Your task to perform on an android device: open app "Microsoft Authenticator" (install if not already installed) Image 0: 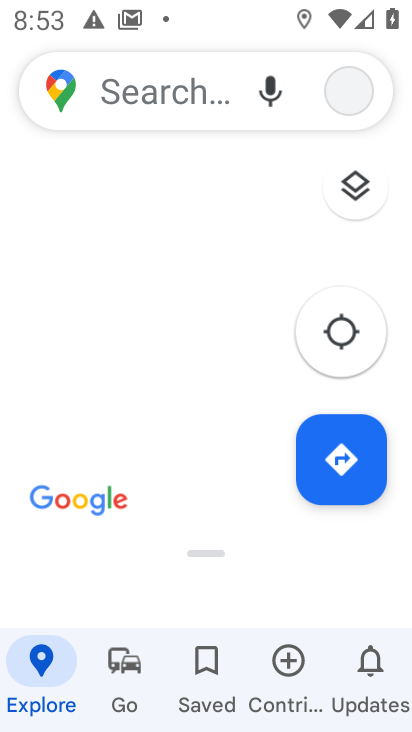
Step 0: press home button
Your task to perform on an android device: open app "Microsoft Authenticator" (install if not already installed) Image 1: 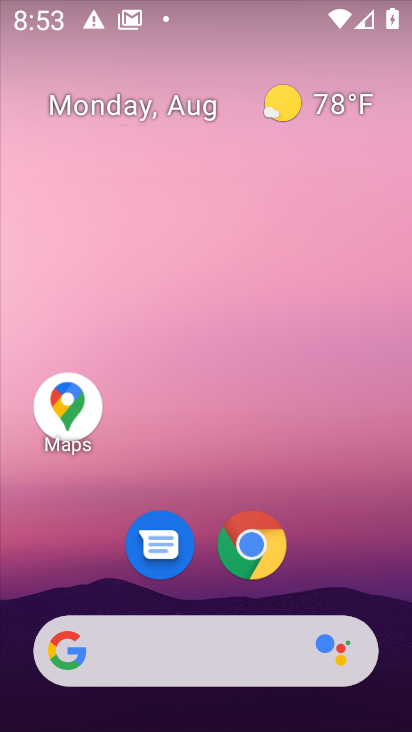
Step 1: drag from (362, 571) to (363, 144)
Your task to perform on an android device: open app "Microsoft Authenticator" (install if not already installed) Image 2: 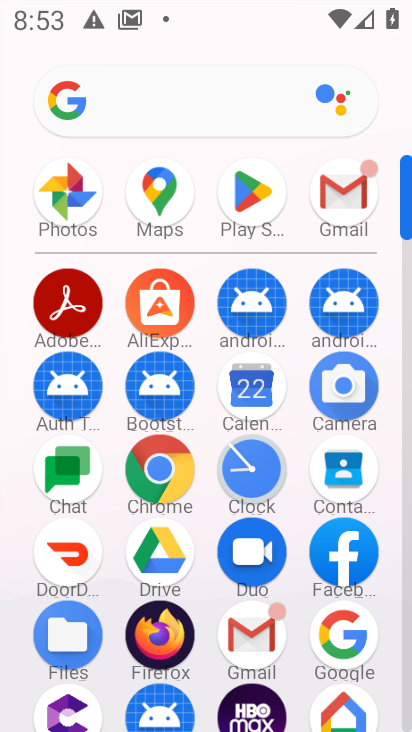
Step 2: click (255, 192)
Your task to perform on an android device: open app "Microsoft Authenticator" (install if not already installed) Image 3: 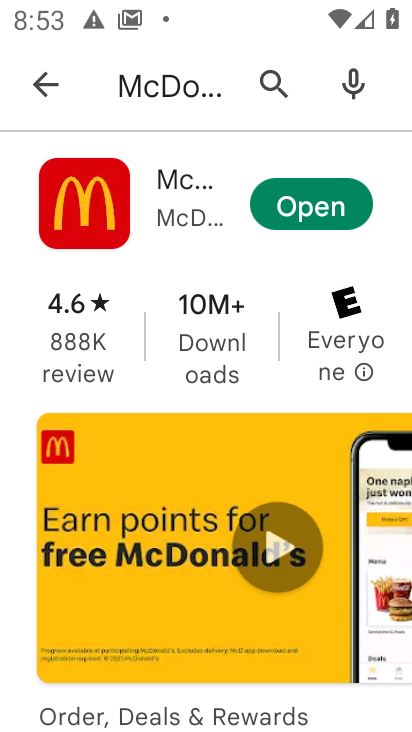
Step 3: press back button
Your task to perform on an android device: open app "Microsoft Authenticator" (install if not already installed) Image 4: 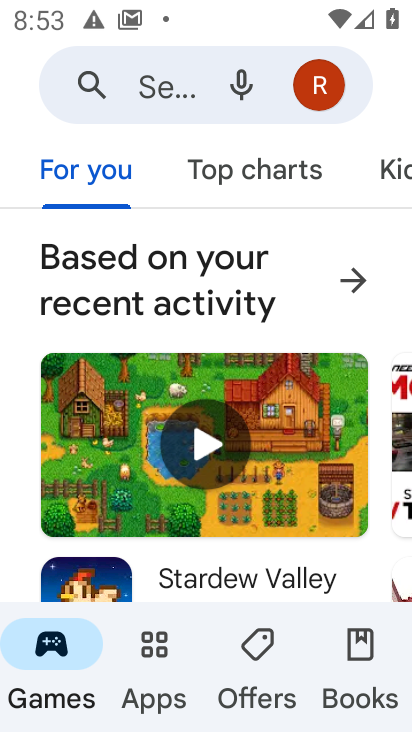
Step 4: click (130, 73)
Your task to perform on an android device: open app "Microsoft Authenticator" (install if not already installed) Image 5: 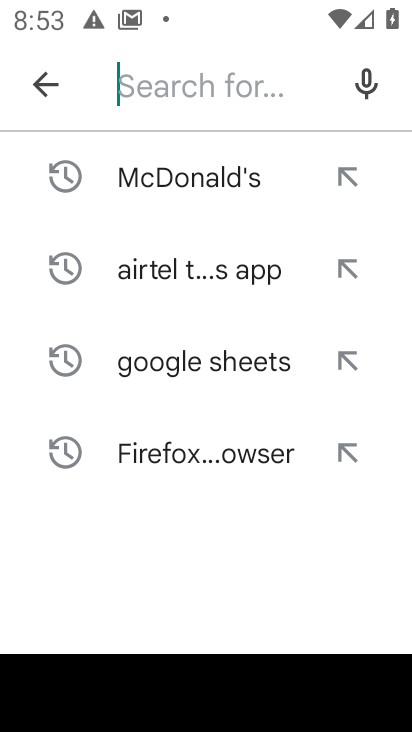
Step 5: type "Microsoft Authenticator"
Your task to perform on an android device: open app "Microsoft Authenticator" (install if not already installed) Image 6: 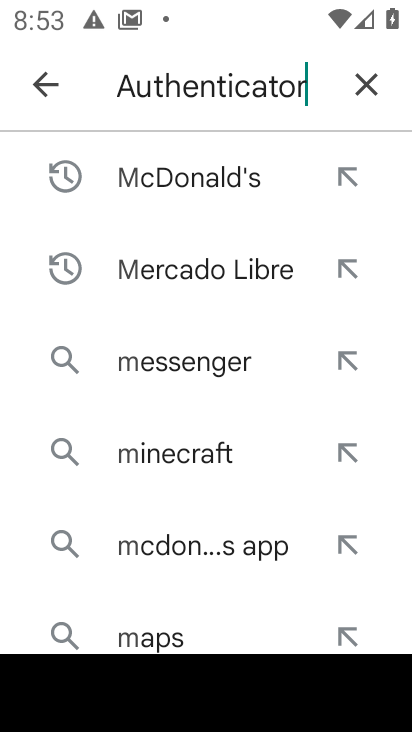
Step 6: press enter
Your task to perform on an android device: open app "Microsoft Authenticator" (install if not already installed) Image 7: 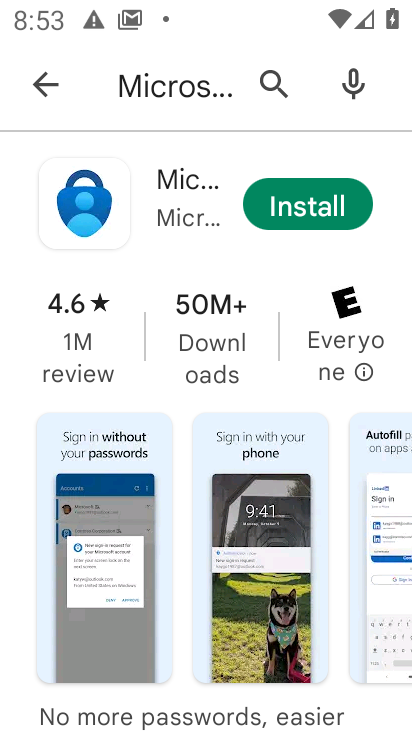
Step 7: click (306, 212)
Your task to perform on an android device: open app "Microsoft Authenticator" (install if not already installed) Image 8: 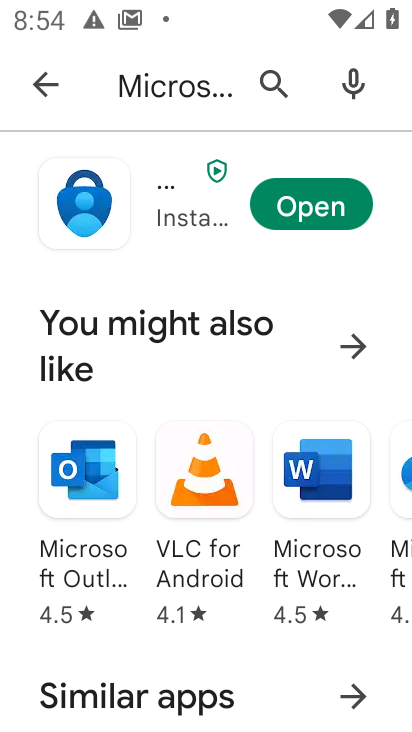
Step 8: click (336, 204)
Your task to perform on an android device: open app "Microsoft Authenticator" (install if not already installed) Image 9: 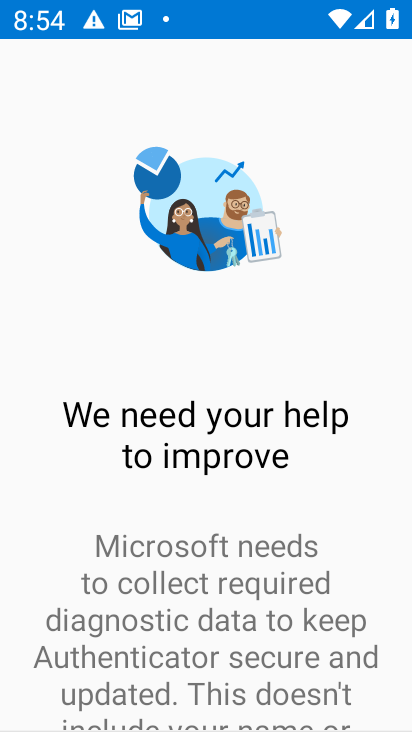
Step 9: task complete